Your task to perform on an android device: Open calendar and show me the fourth week of next month Image 0: 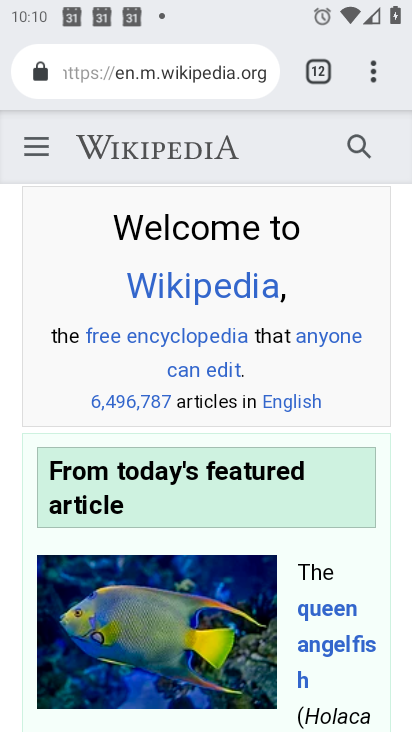
Step 0: press home button
Your task to perform on an android device: Open calendar and show me the fourth week of next month Image 1: 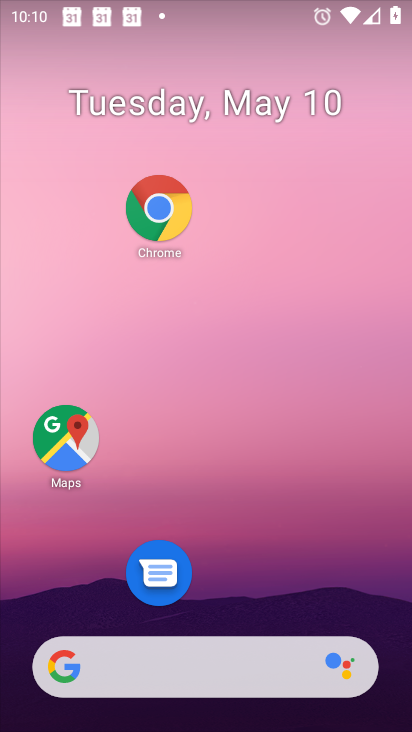
Step 1: drag from (266, 688) to (297, 270)
Your task to perform on an android device: Open calendar and show me the fourth week of next month Image 2: 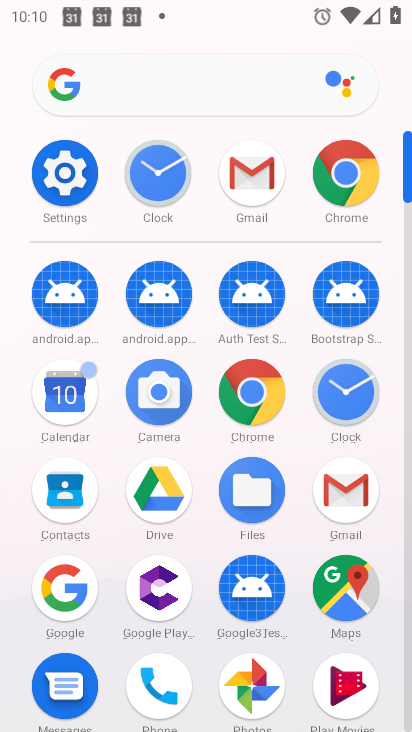
Step 2: click (74, 405)
Your task to perform on an android device: Open calendar and show me the fourth week of next month Image 3: 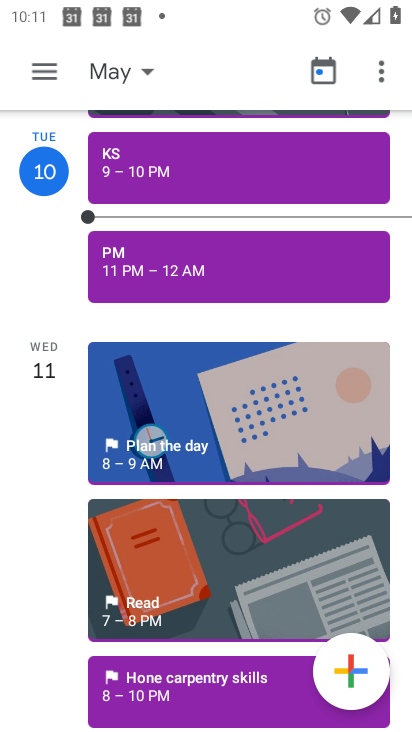
Step 3: click (36, 69)
Your task to perform on an android device: Open calendar and show me the fourth week of next month Image 4: 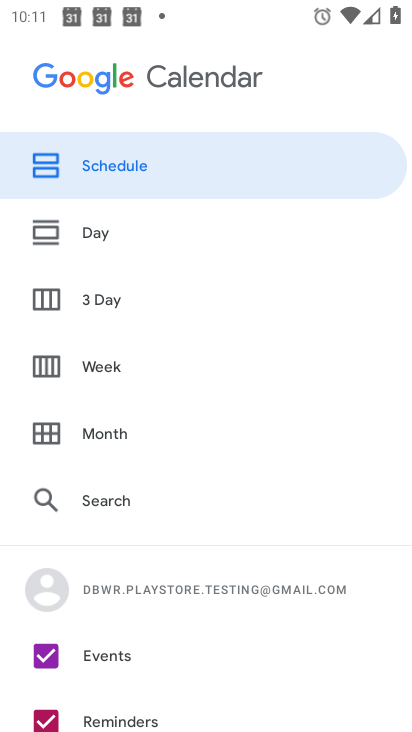
Step 4: click (104, 441)
Your task to perform on an android device: Open calendar and show me the fourth week of next month Image 5: 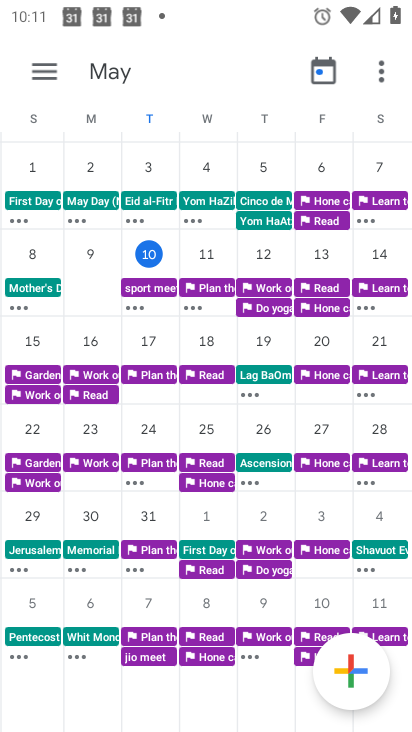
Step 5: drag from (331, 375) to (0, 462)
Your task to perform on an android device: Open calendar and show me the fourth week of next month Image 6: 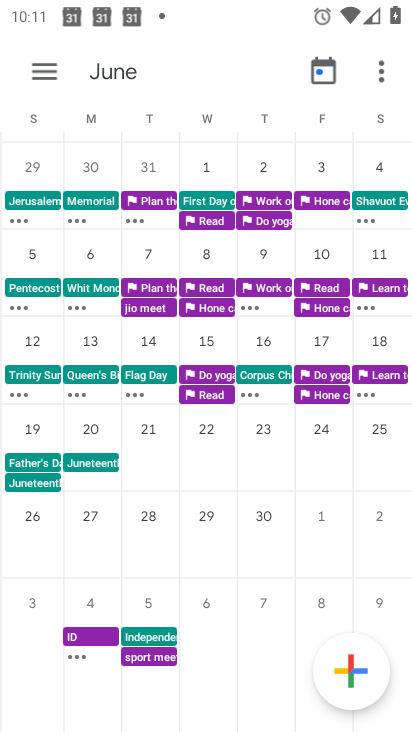
Step 6: click (97, 429)
Your task to perform on an android device: Open calendar and show me the fourth week of next month Image 7: 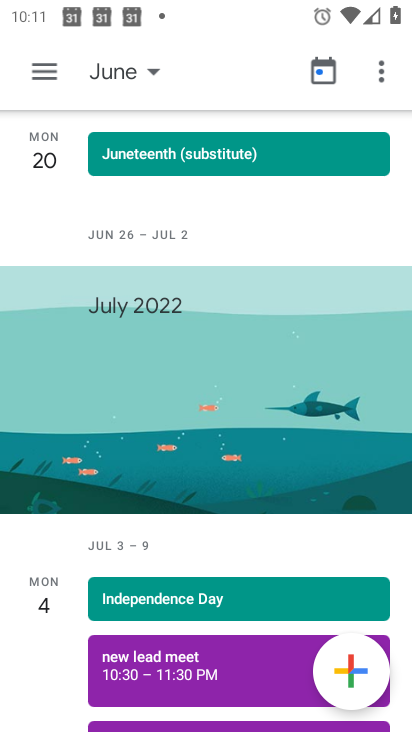
Step 7: task complete